Your task to perform on an android device: set the stopwatch Image 0: 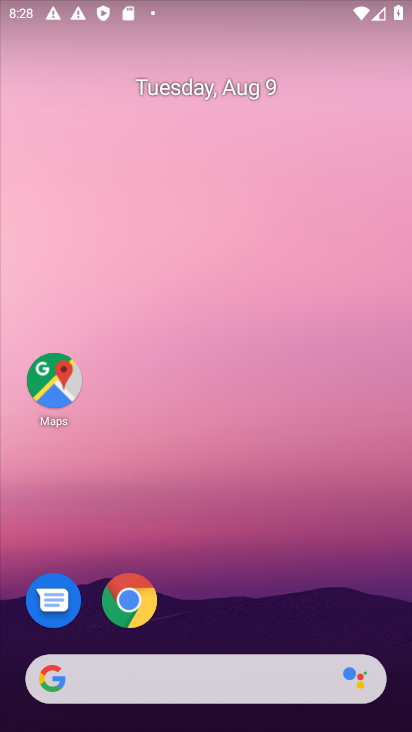
Step 0: press home button
Your task to perform on an android device: set the stopwatch Image 1: 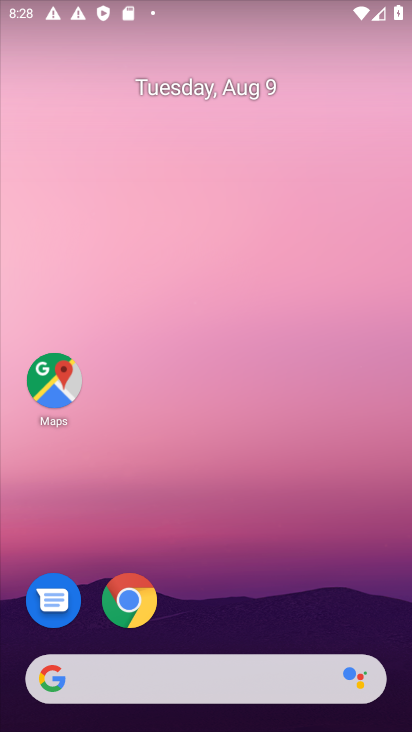
Step 1: drag from (246, 639) to (298, 52)
Your task to perform on an android device: set the stopwatch Image 2: 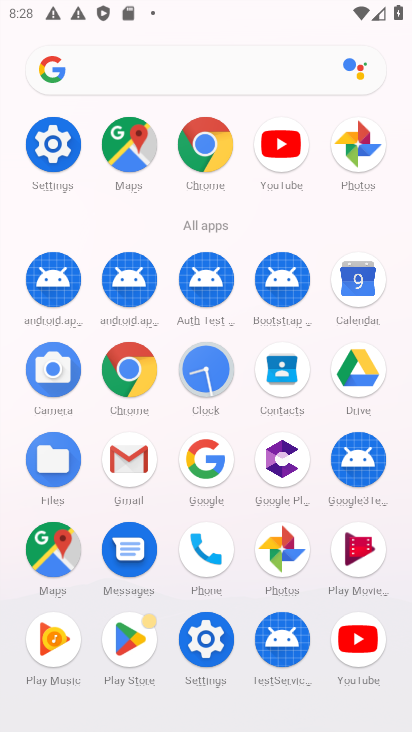
Step 2: click (214, 374)
Your task to perform on an android device: set the stopwatch Image 3: 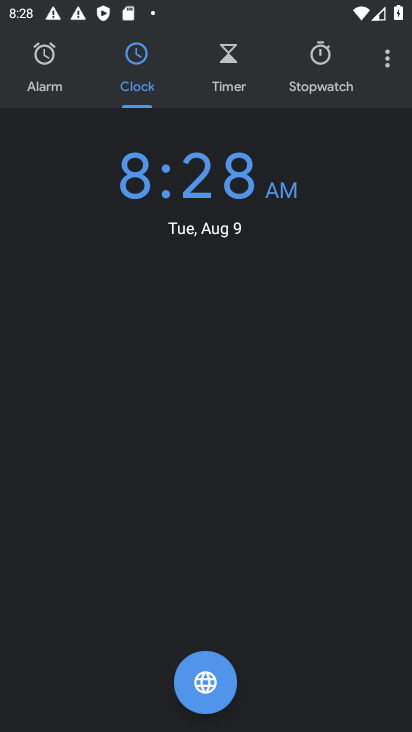
Step 3: click (322, 56)
Your task to perform on an android device: set the stopwatch Image 4: 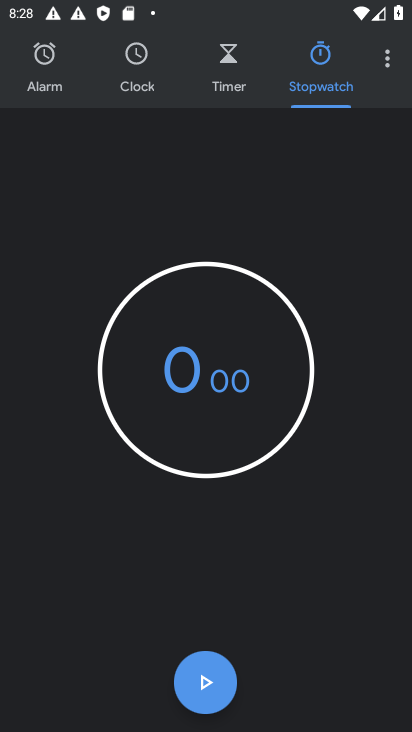
Step 4: click (199, 687)
Your task to perform on an android device: set the stopwatch Image 5: 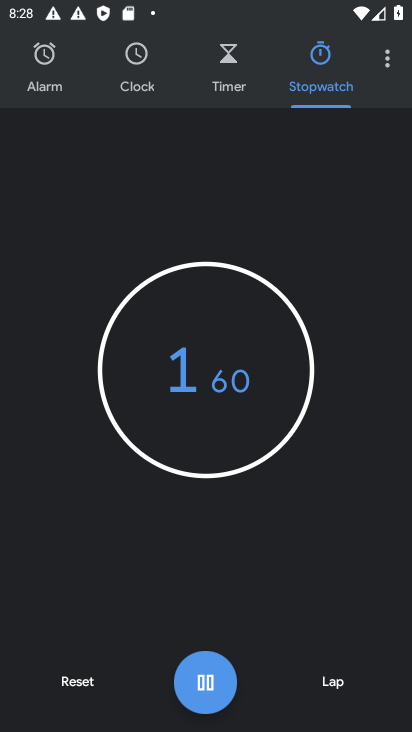
Step 5: task complete